Your task to perform on an android device: Open Google Maps Image 0: 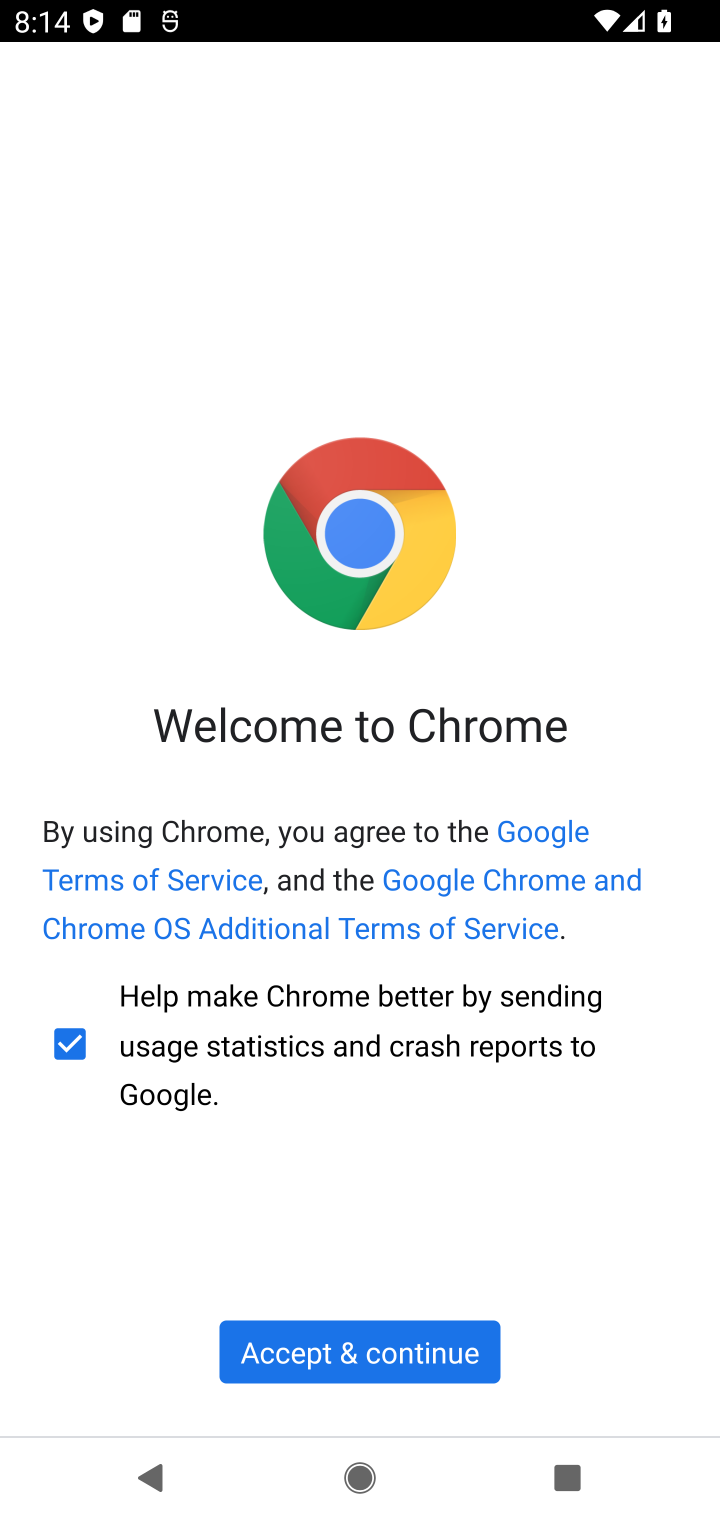
Step 0: press home button
Your task to perform on an android device: Open Google Maps Image 1: 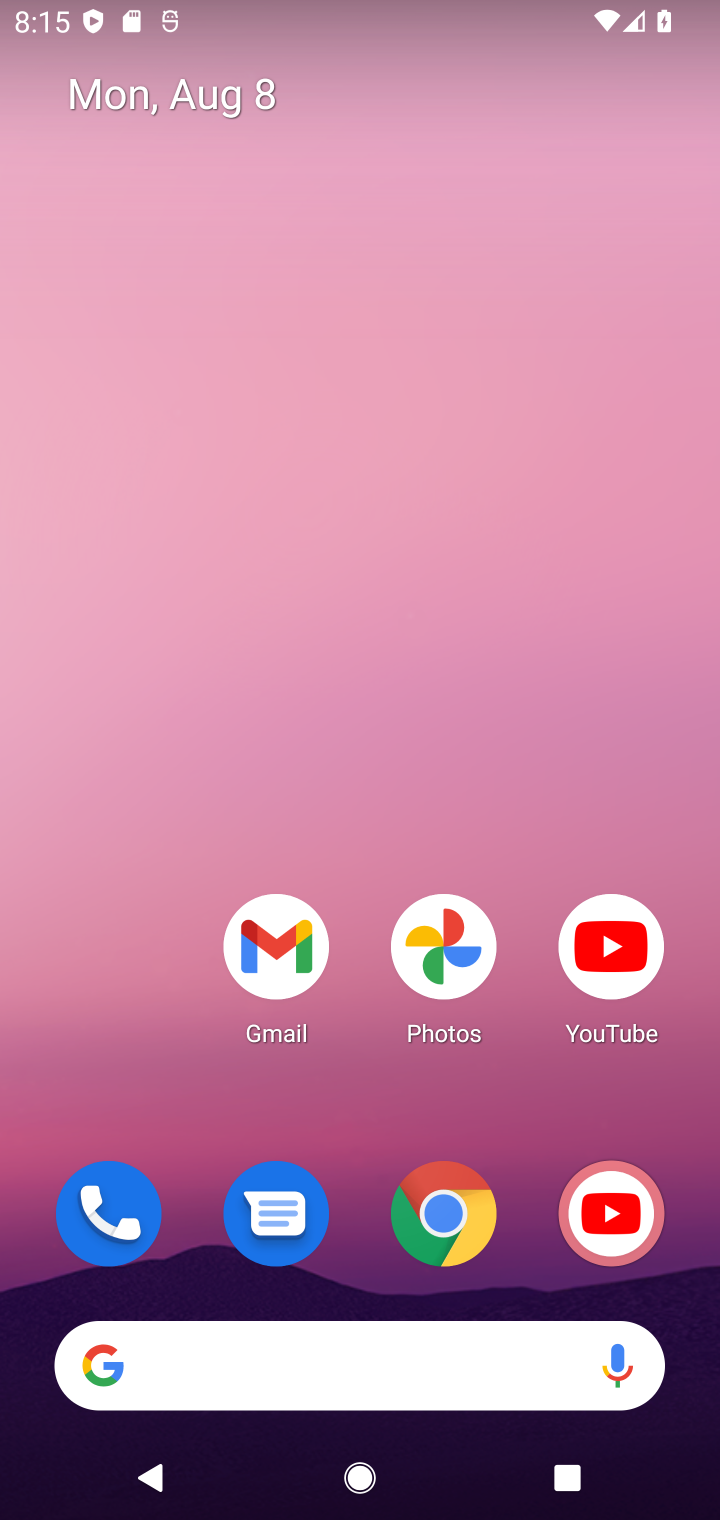
Step 1: drag from (97, 1122) to (571, 320)
Your task to perform on an android device: Open Google Maps Image 2: 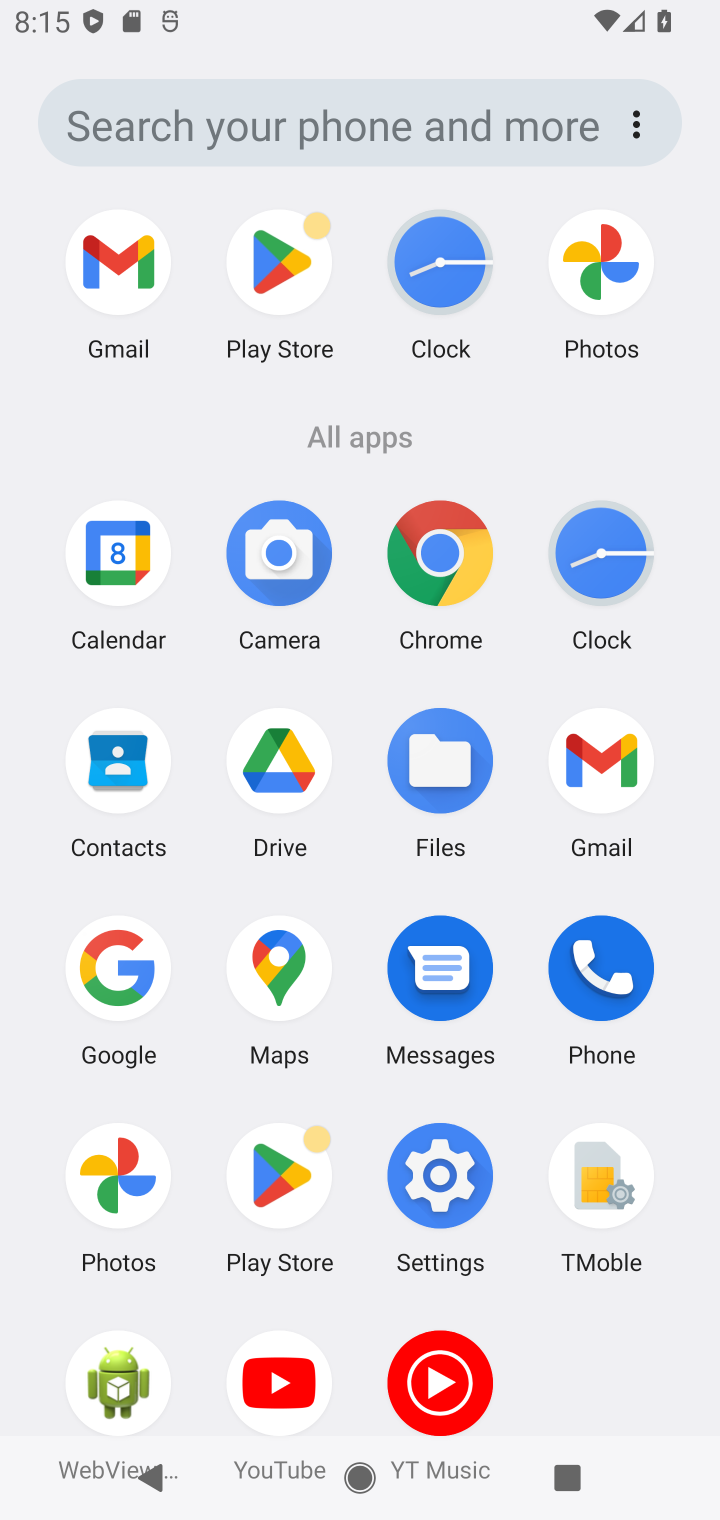
Step 2: click (277, 981)
Your task to perform on an android device: Open Google Maps Image 3: 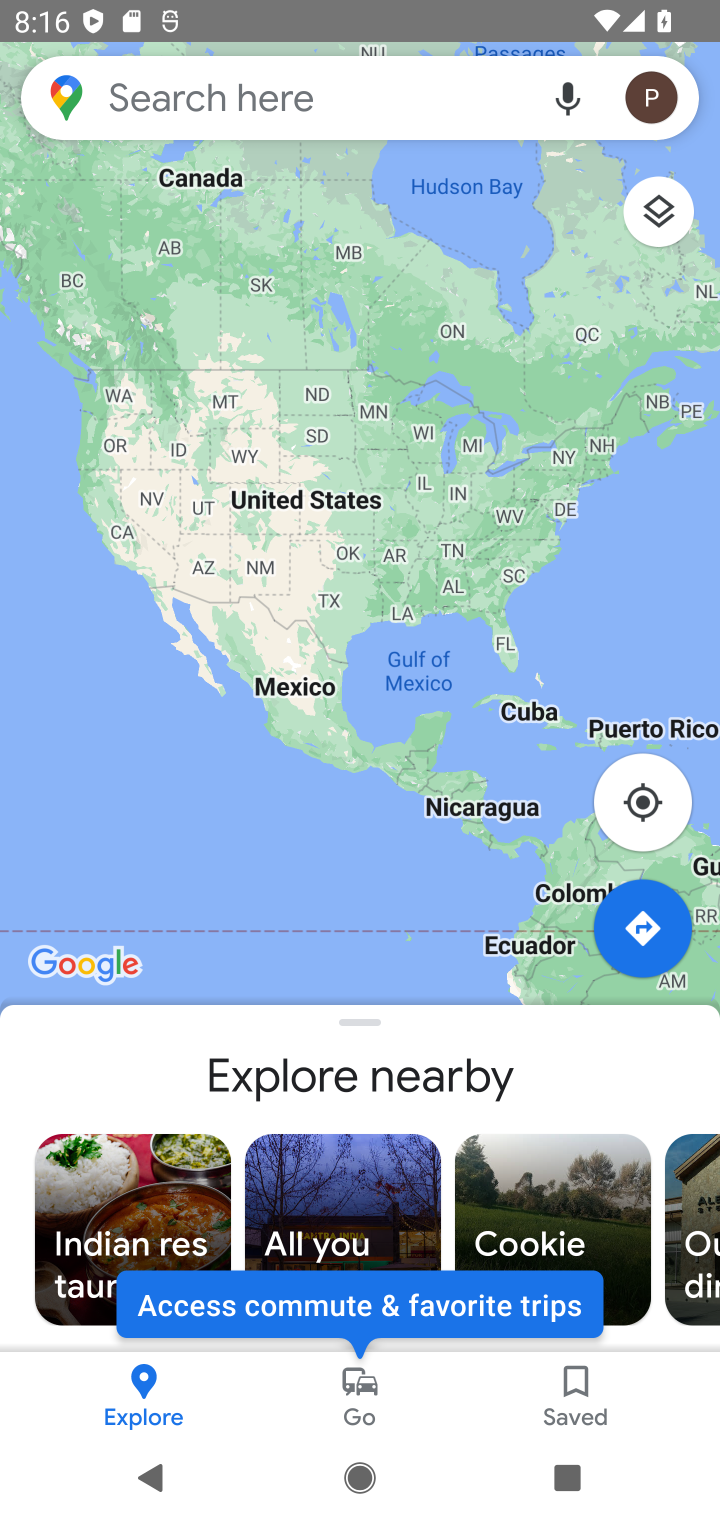
Step 3: task complete